Your task to perform on an android device: Open Chrome and go to settings Image 0: 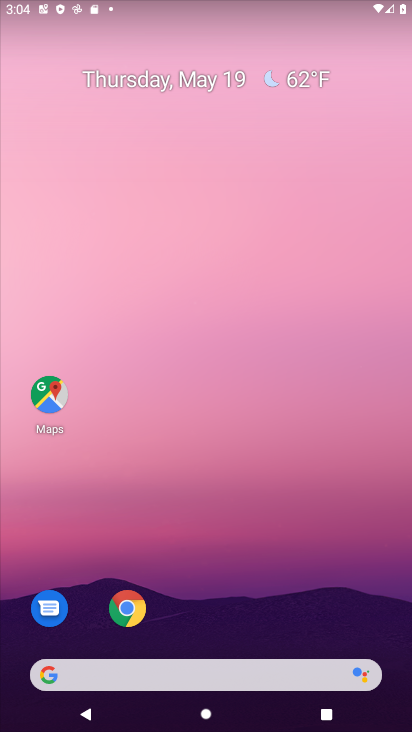
Step 0: click (295, 597)
Your task to perform on an android device: Open Chrome and go to settings Image 1: 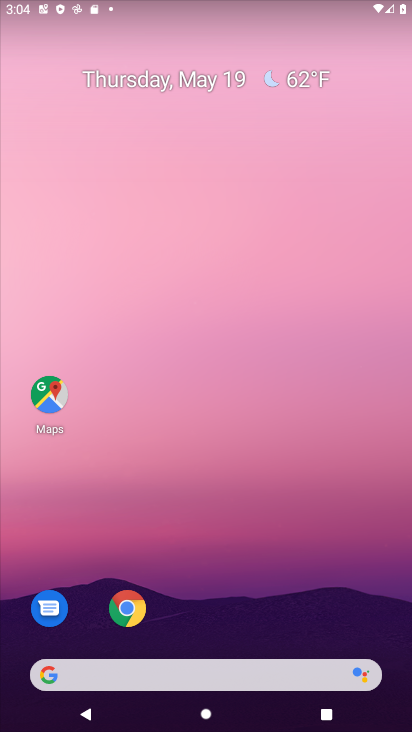
Step 1: click (295, 597)
Your task to perform on an android device: Open Chrome and go to settings Image 2: 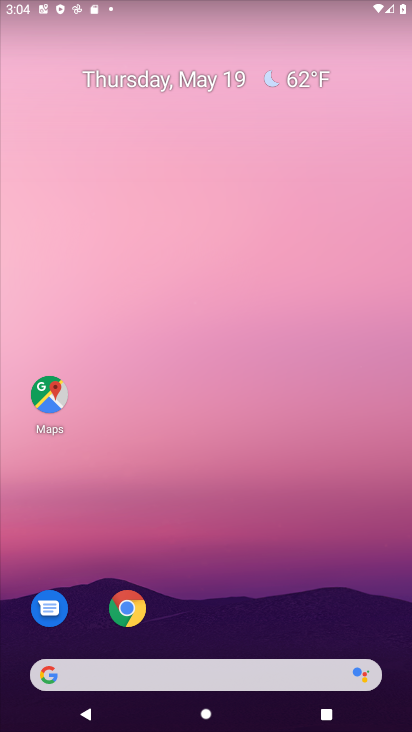
Step 2: click (124, 623)
Your task to perform on an android device: Open Chrome and go to settings Image 3: 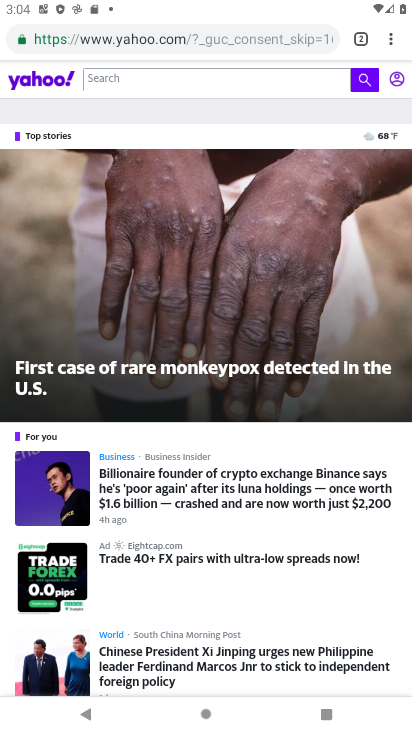
Step 3: click (398, 36)
Your task to perform on an android device: Open Chrome and go to settings Image 4: 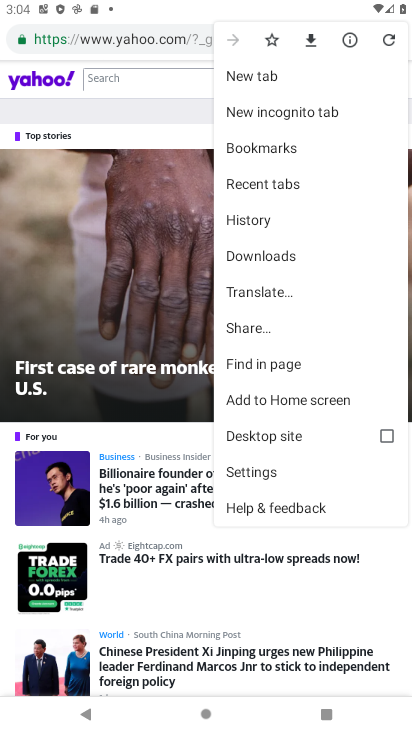
Step 4: click (290, 460)
Your task to perform on an android device: Open Chrome and go to settings Image 5: 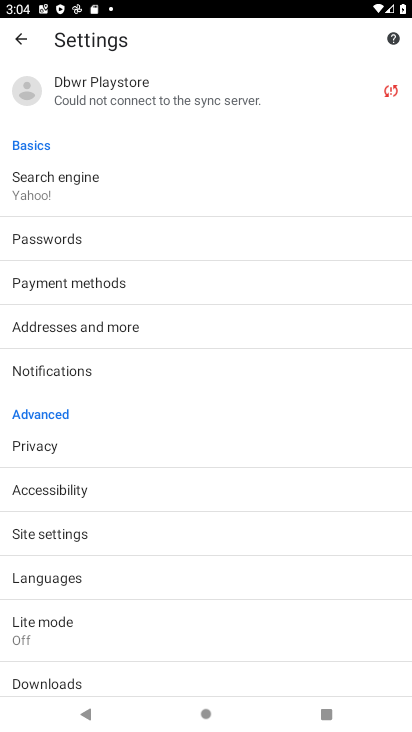
Step 5: task complete